Your task to perform on an android device: change notifications settings Image 0: 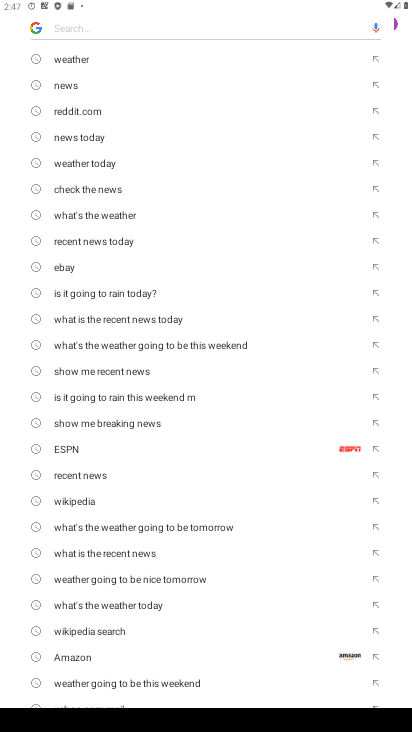
Step 0: press home button
Your task to perform on an android device: change notifications settings Image 1: 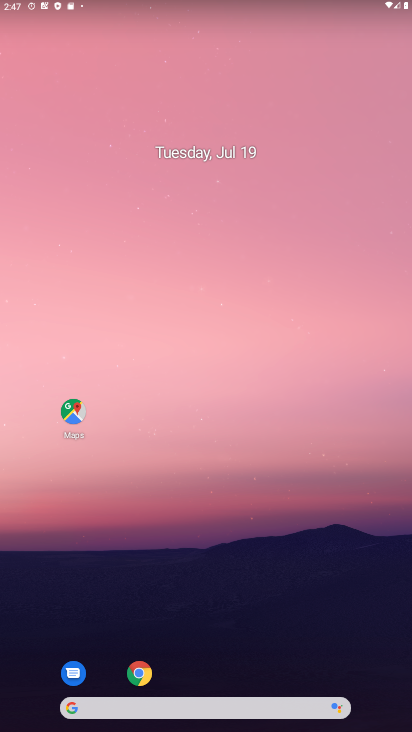
Step 1: drag from (192, 663) to (140, 6)
Your task to perform on an android device: change notifications settings Image 2: 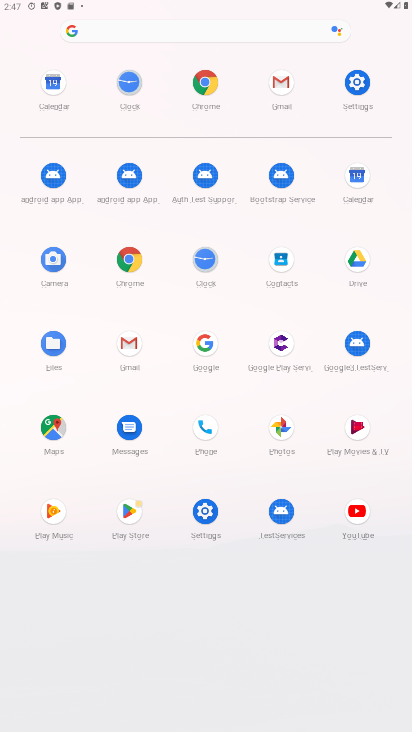
Step 2: click (208, 519)
Your task to perform on an android device: change notifications settings Image 3: 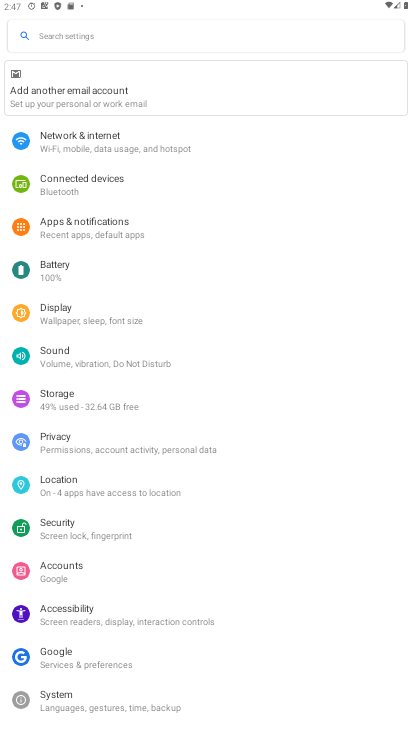
Step 3: click (118, 225)
Your task to perform on an android device: change notifications settings Image 4: 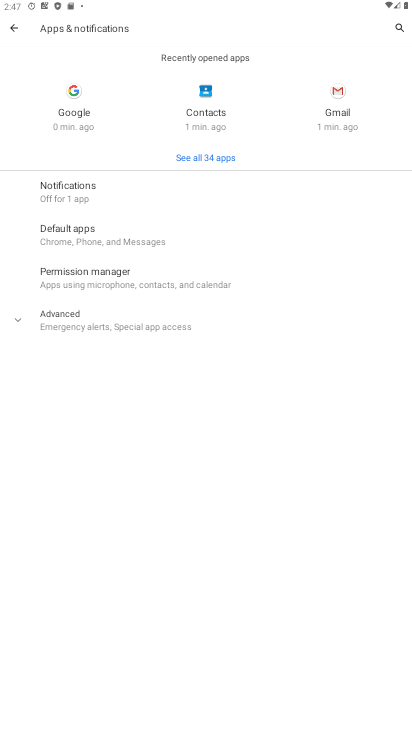
Step 4: click (82, 199)
Your task to perform on an android device: change notifications settings Image 5: 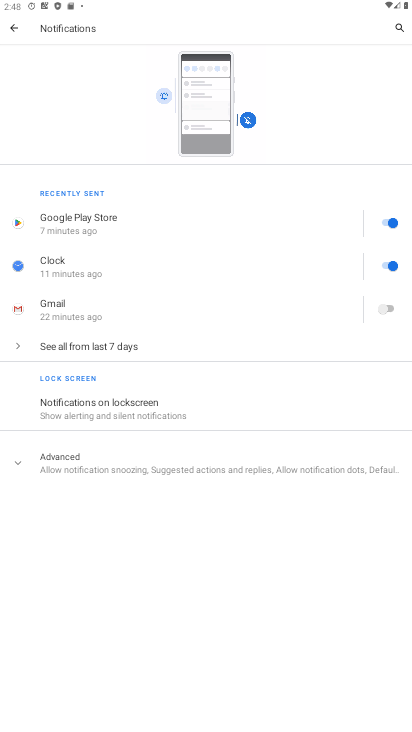
Step 5: click (82, 351)
Your task to perform on an android device: change notifications settings Image 6: 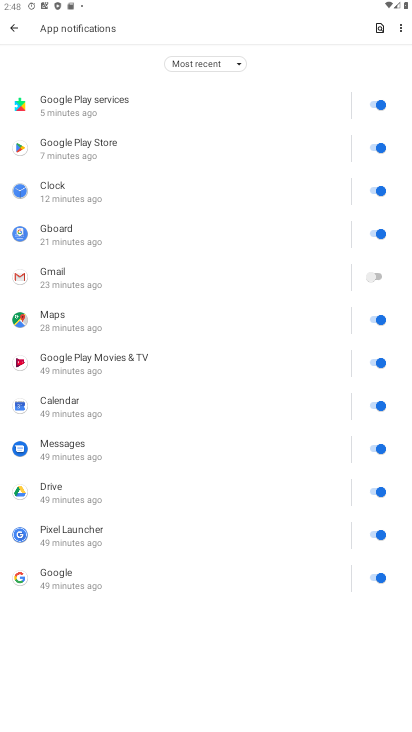
Step 6: click (365, 118)
Your task to perform on an android device: change notifications settings Image 7: 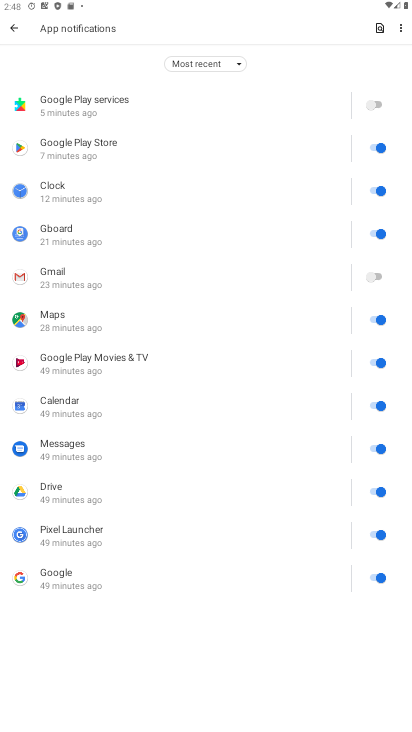
Step 7: click (373, 145)
Your task to perform on an android device: change notifications settings Image 8: 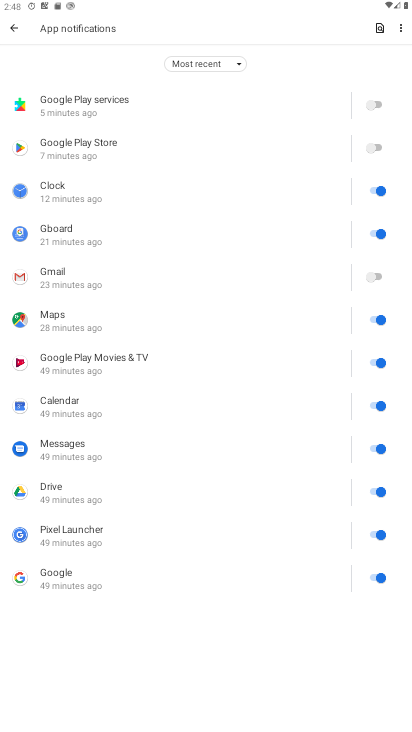
Step 8: click (362, 189)
Your task to perform on an android device: change notifications settings Image 9: 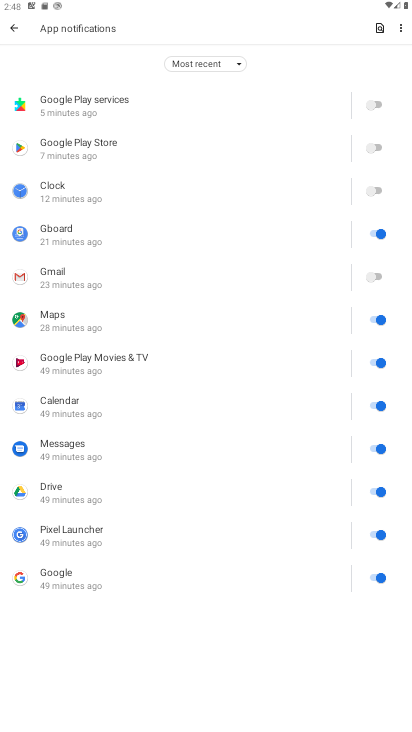
Step 9: click (374, 234)
Your task to perform on an android device: change notifications settings Image 10: 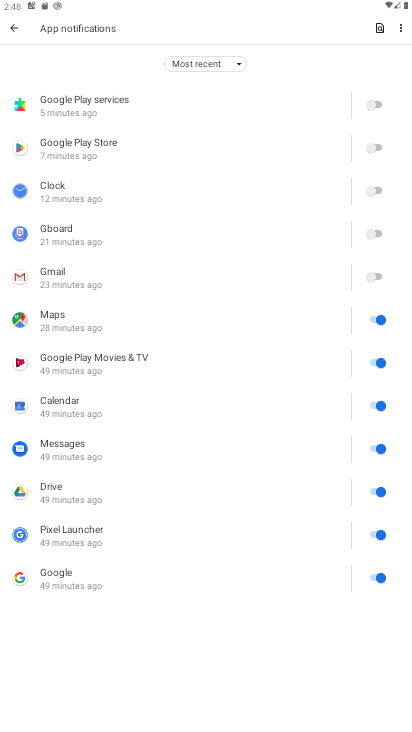
Step 10: click (368, 315)
Your task to perform on an android device: change notifications settings Image 11: 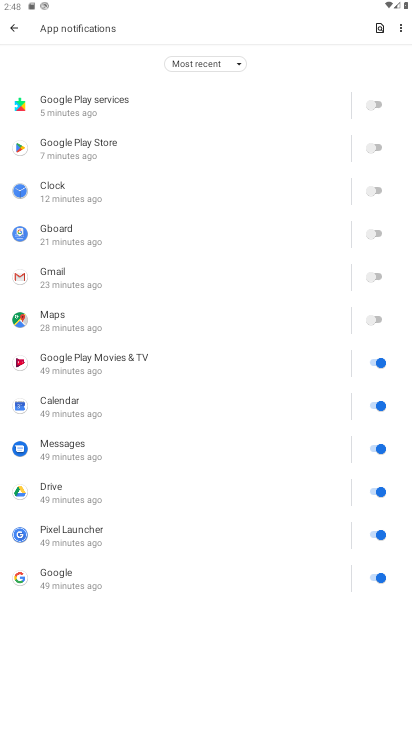
Step 11: click (373, 376)
Your task to perform on an android device: change notifications settings Image 12: 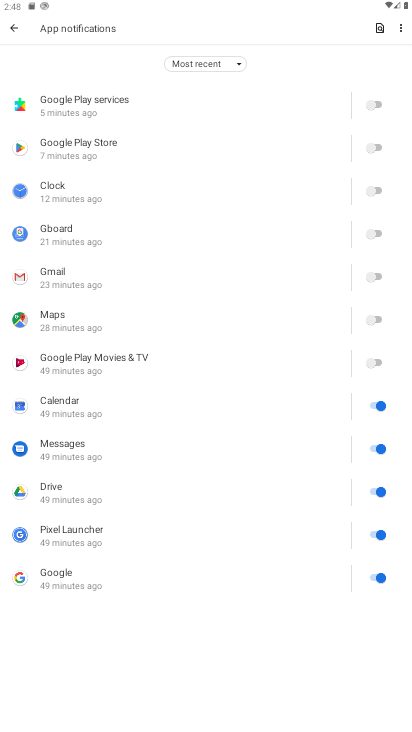
Step 12: click (379, 404)
Your task to perform on an android device: change notifications settings Image 13: 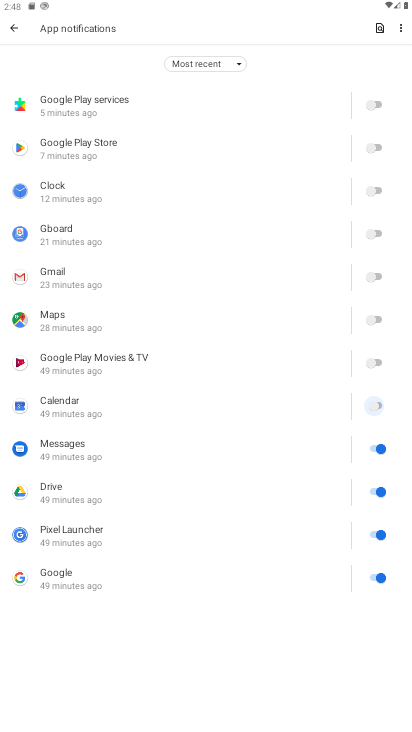
Step 13: click (365, 447)
Your task to perform on an android device: change notifications settings Image 14: 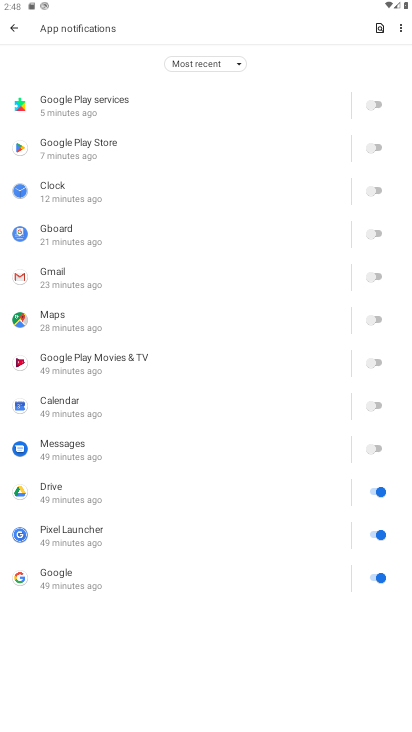
Step 14: click (368, 533)
Your task to perform on an android device: change notifications settings Image 15: 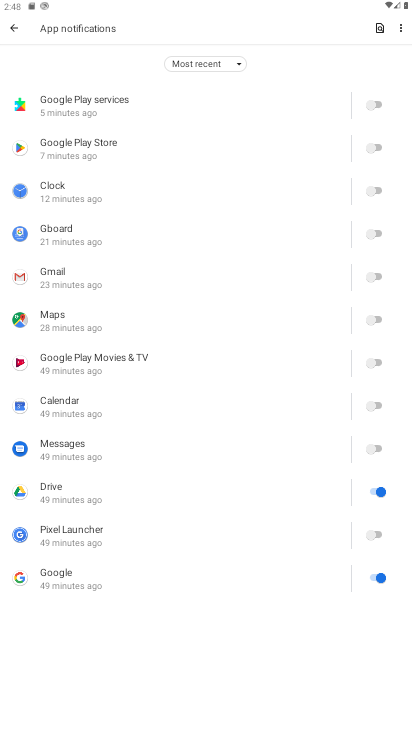
Step 15: click (363, 582)
Your task to perform on an android device: change notifications settings Image 16: 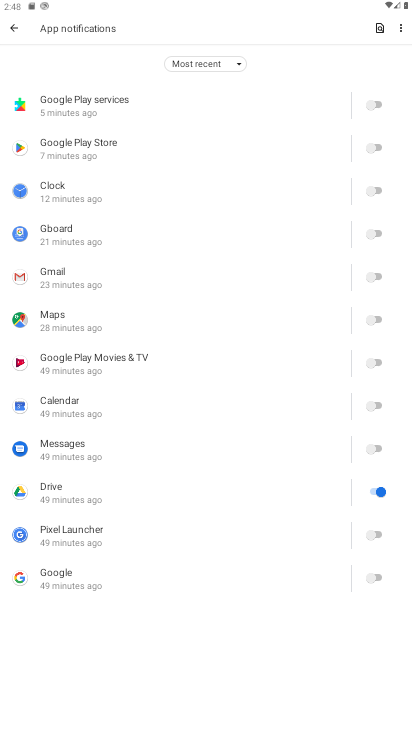
Step 16: click (359, 494)
Your task to perform on an android device: change notifications settings Image 17: 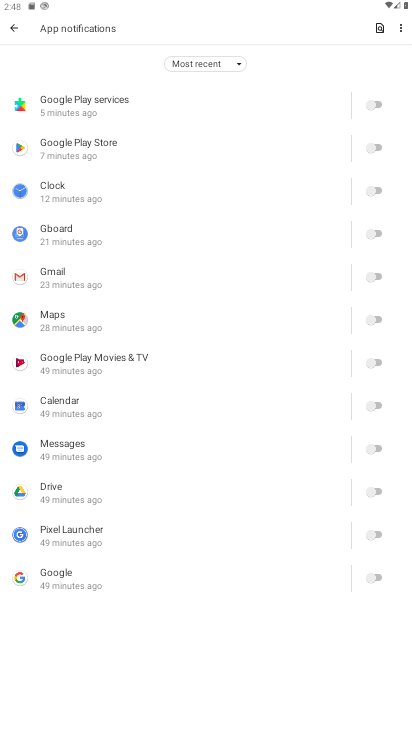
Step 17: task complete